Your task to perform on an android device: turn on the 12-hour format for clock Image 0: 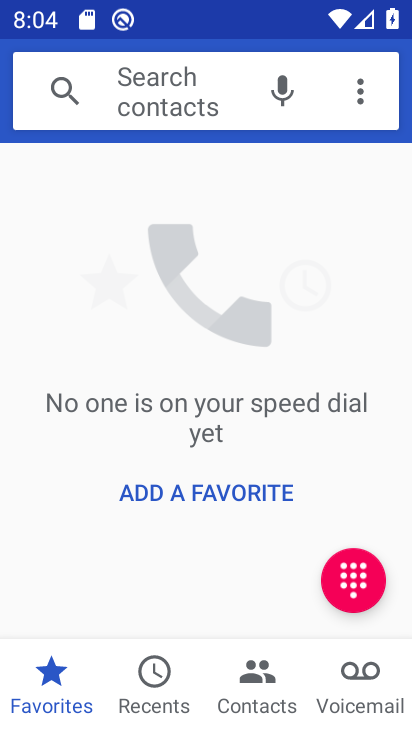
Step 0: drag from (97, 614) to (220, 181)
Your task to perform on an android device: turn on the 12-hour format for clock Image 1: 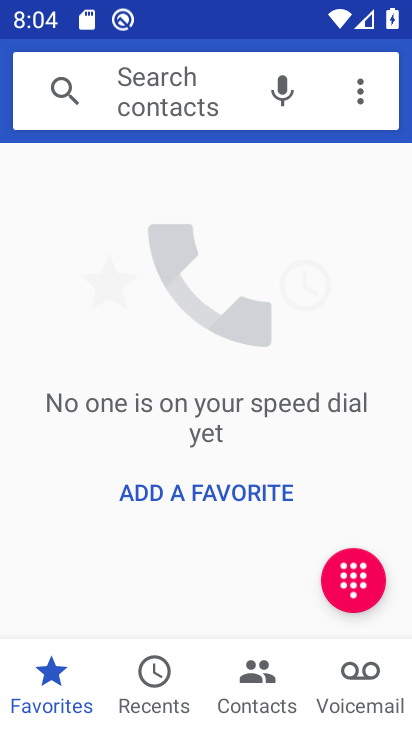
Step 1: press home button
Your task to perform on an android device: turn on the 12-hour format for clock Image 2: 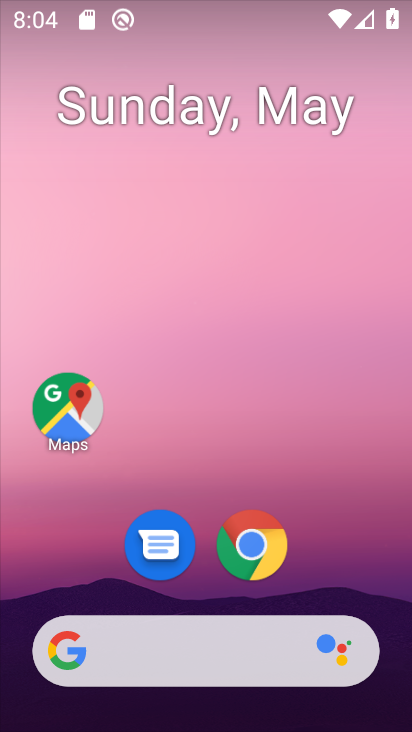
Step 2: drag from (67, 617) to (255, 70)
Your task to perform on an android device: turn on the 12-hour format for clock Image 3: 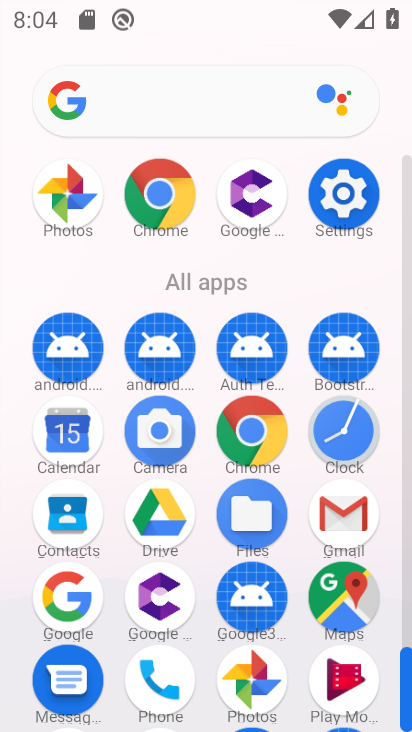
Step 3: click (342, 442)
Your task to perform on an android device: turn on the 12-hour format for clock Image 4: 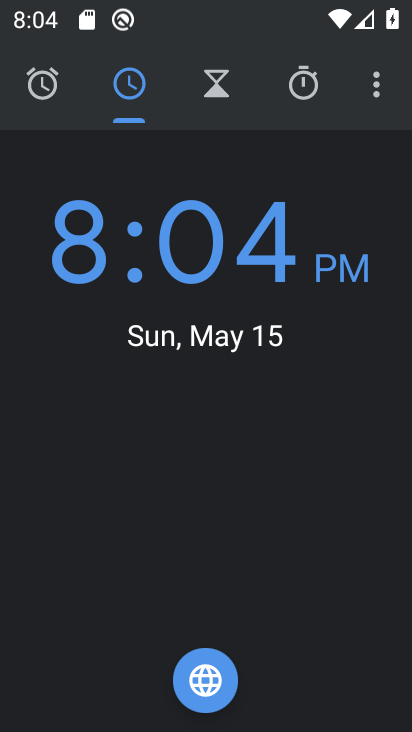
Step 4: click (404, 91)
Your task to perform on an android device: turn on the 12-hour format for clock Image 5: 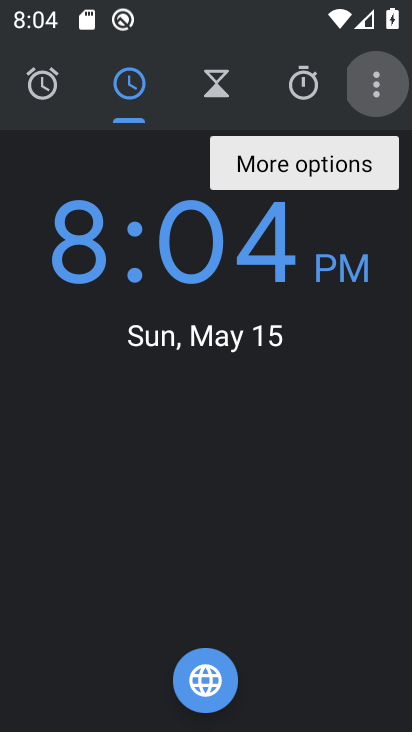
Step 5: click (400, 89)
Your task to perform on an android device: turn on the 12-hour format for clock Image 6: 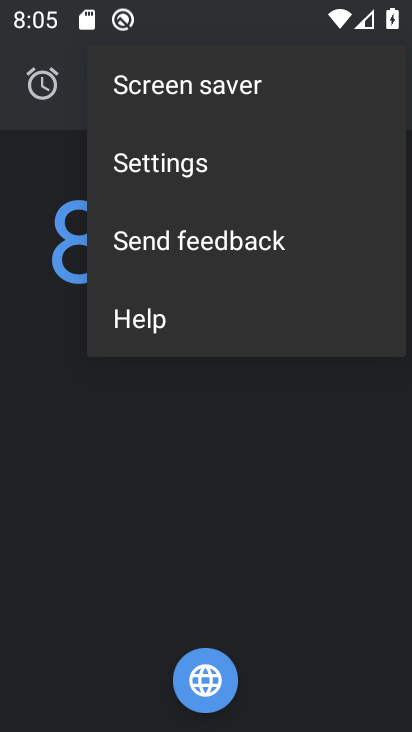
Step 6: click (309, 158)
Your task to perform on an android device: turn on the 12-hour format for clock Image 7: 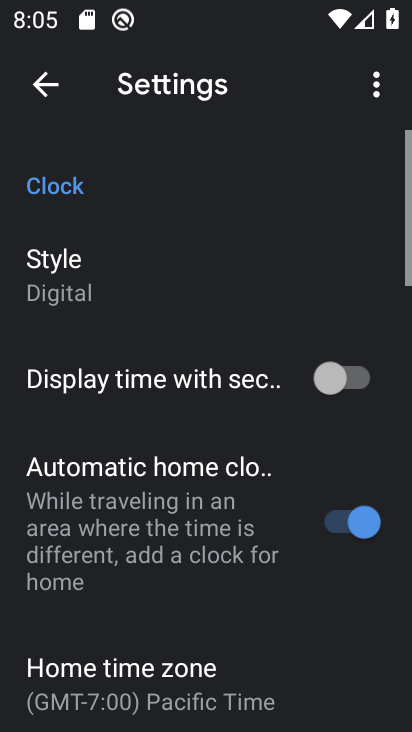
Step 7: drag from (199, 601) to (267, 278)
Your task to perform on an android device: turn on the 12-hour format for clock Image 8: 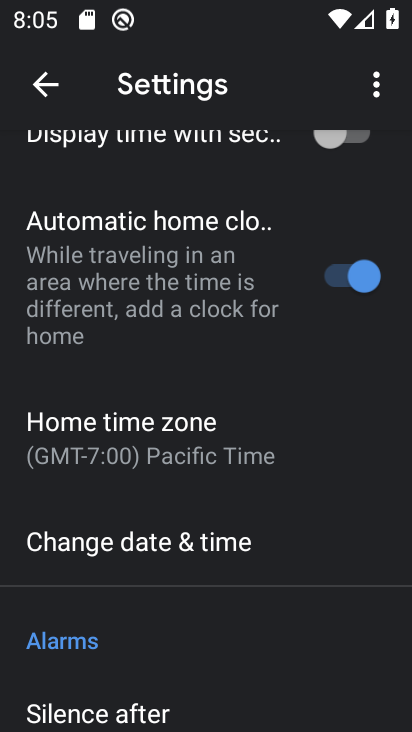
Step 8: click (226, 553)
Your task to perform on an android device: turn on the 12-hour format for clock Image 9: 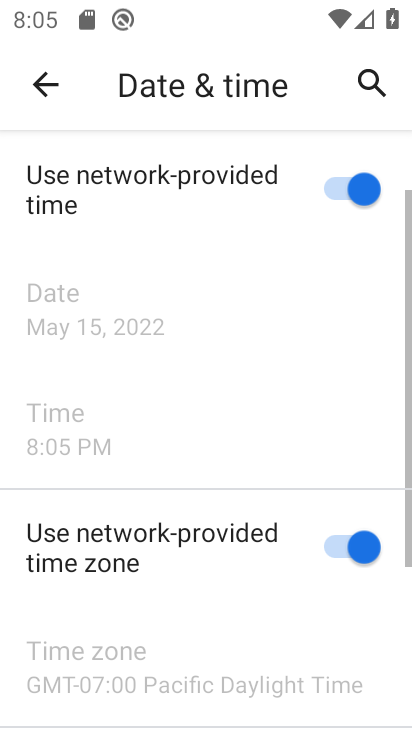
Step 9: task complete